Your task to perform on an android device: Go to Maps Image 0: 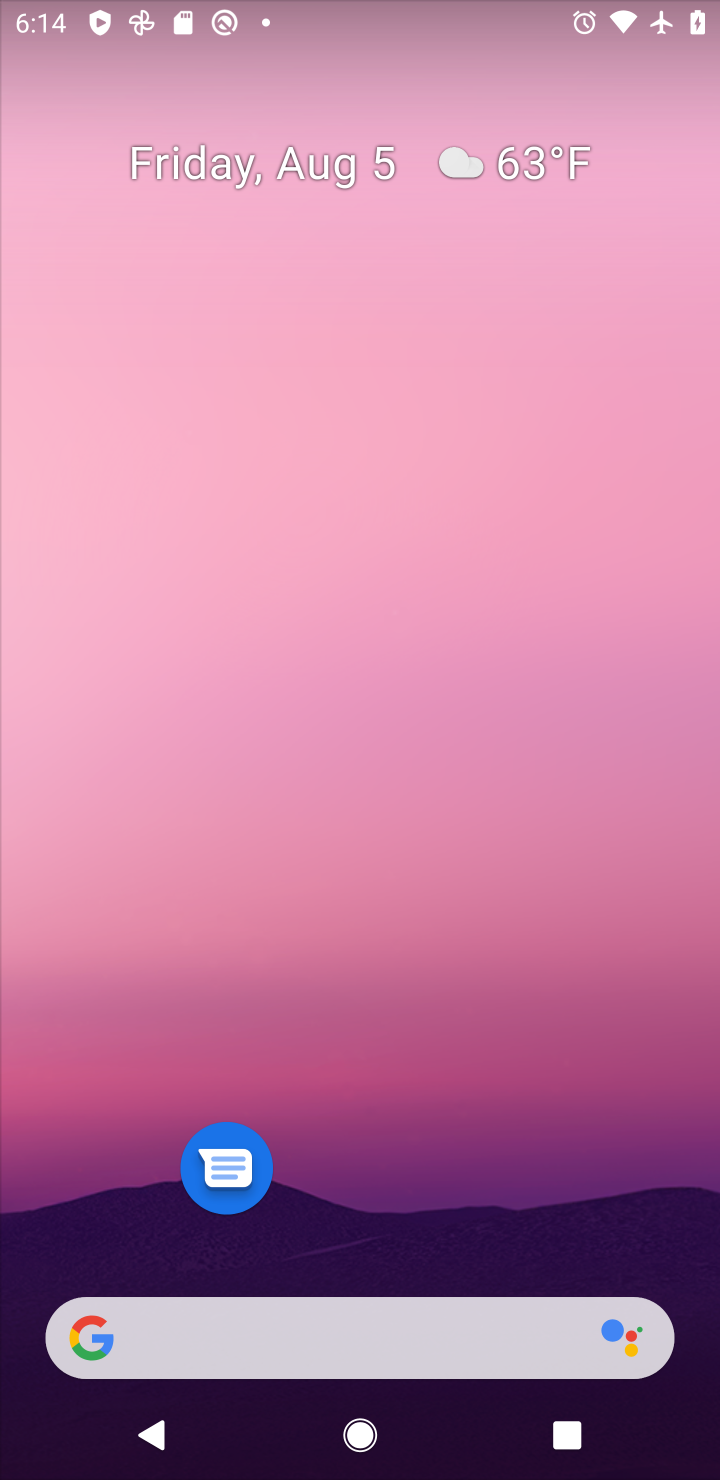
Step 0: drag from (411, 1275) to (471, 202)
Your task to perform on an android device: Go to Maps Image 1: 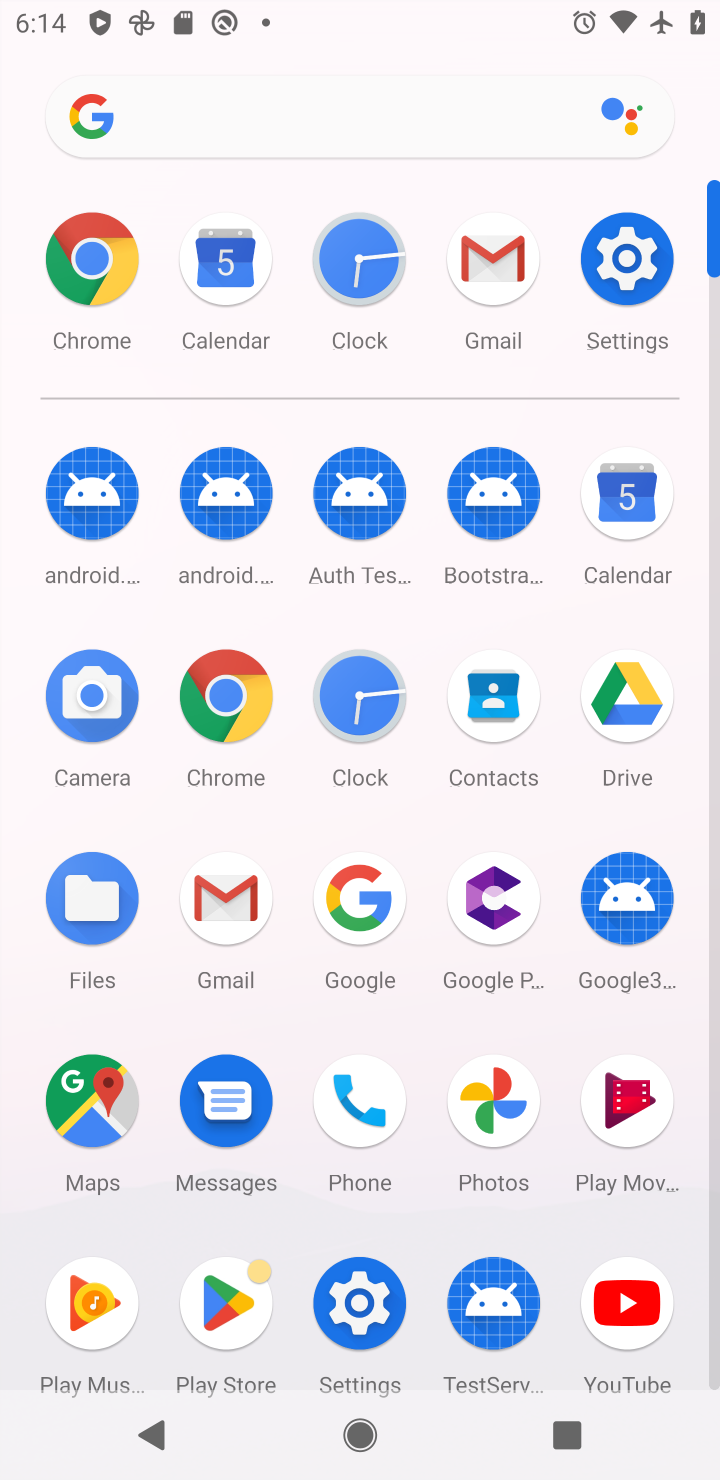
Step 1: click (89, 1109)
Your task to perform on an android device: Go to Maps Image 2: 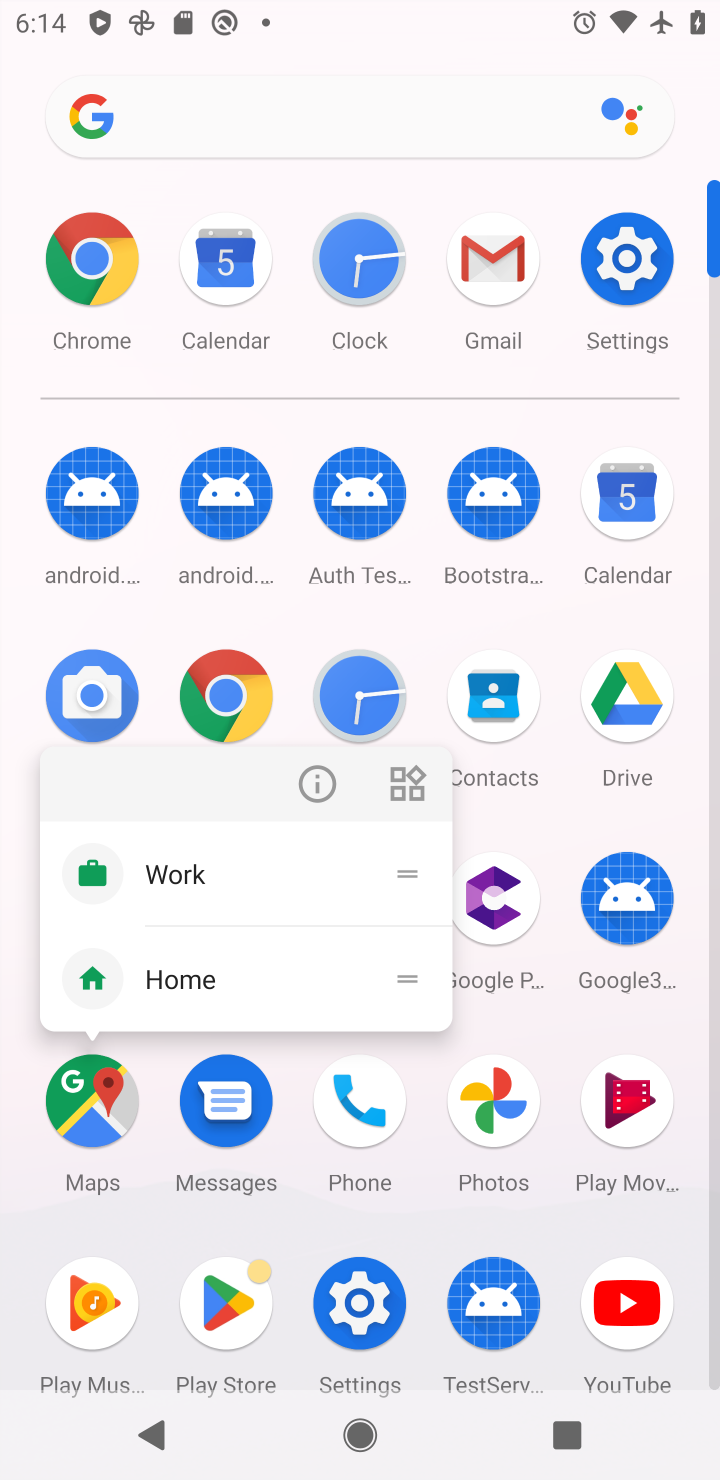
Step 2: click (89, 1109)
Your task to perform on an android device: Go to Maps Image 3: 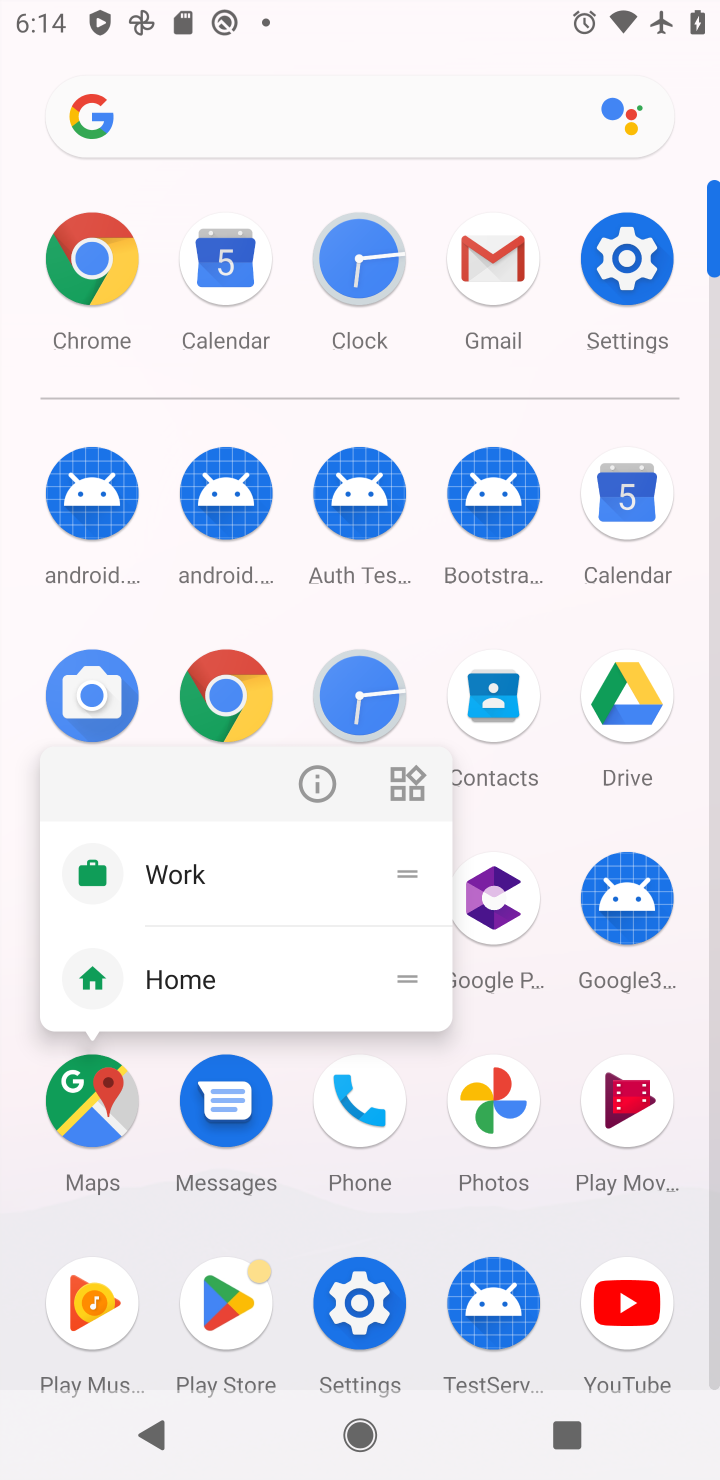
Step 3: click (89, 1109)
Your task to perform on an android device: Go to Maps Image 4: 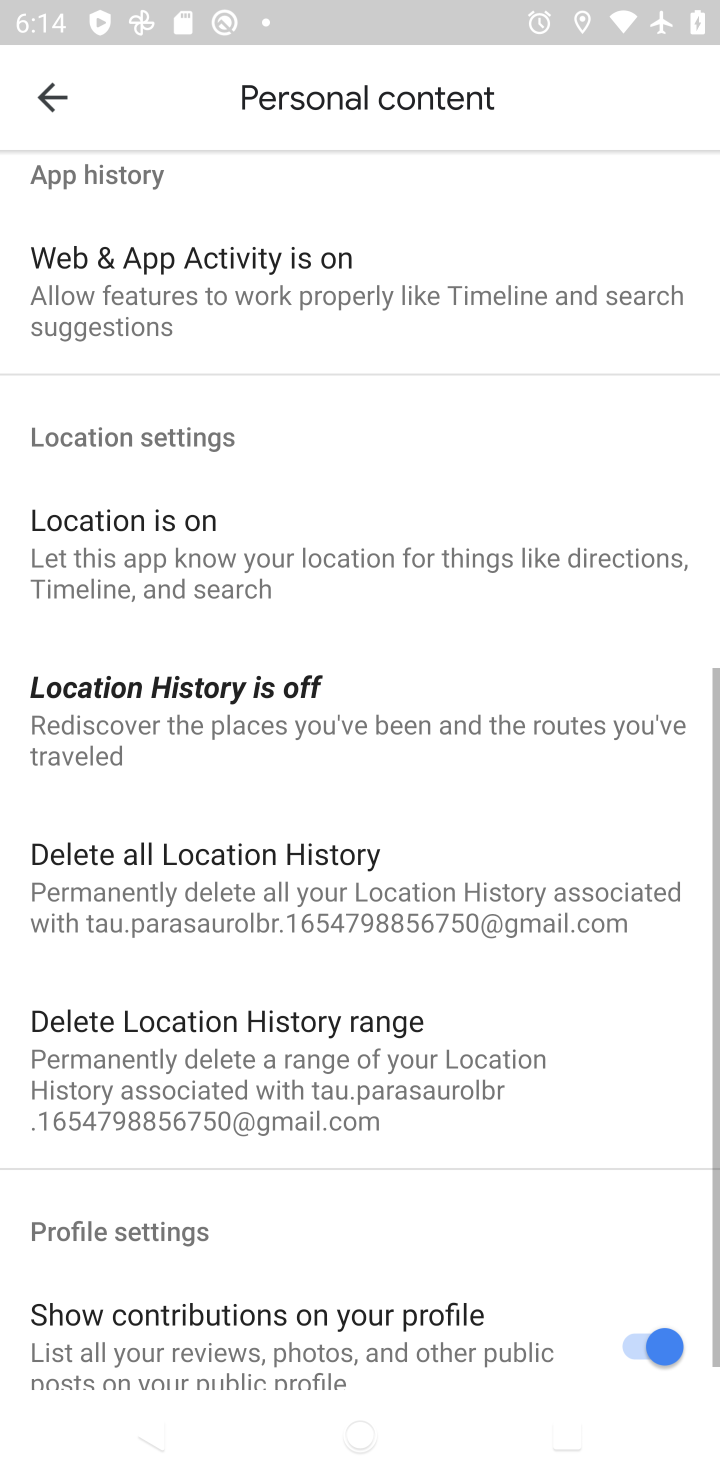
Step 4: click (64, 96)
Your task to perform on an android device: Go to Maps Image 5: 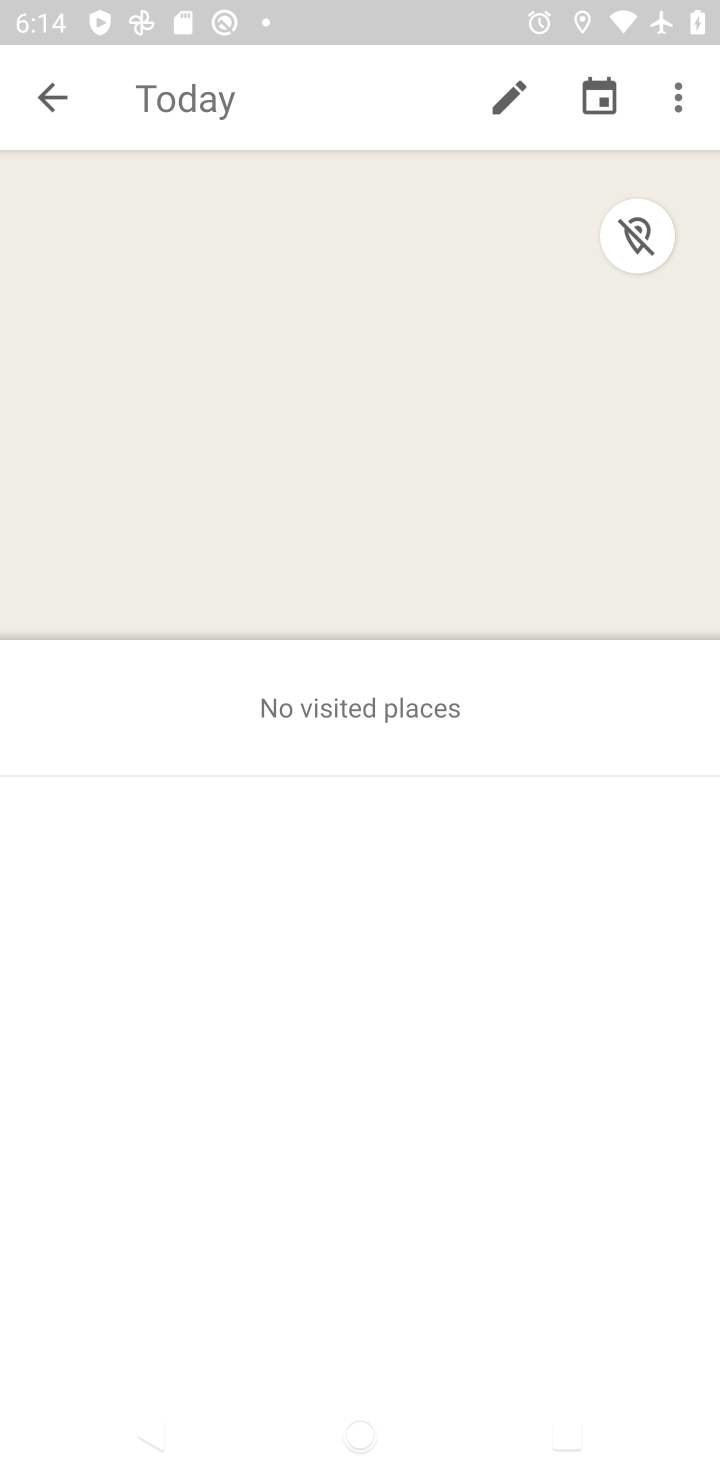
Step 5: click (61, 99)
Your task to perform on an android device: Go to Maps Image 6: 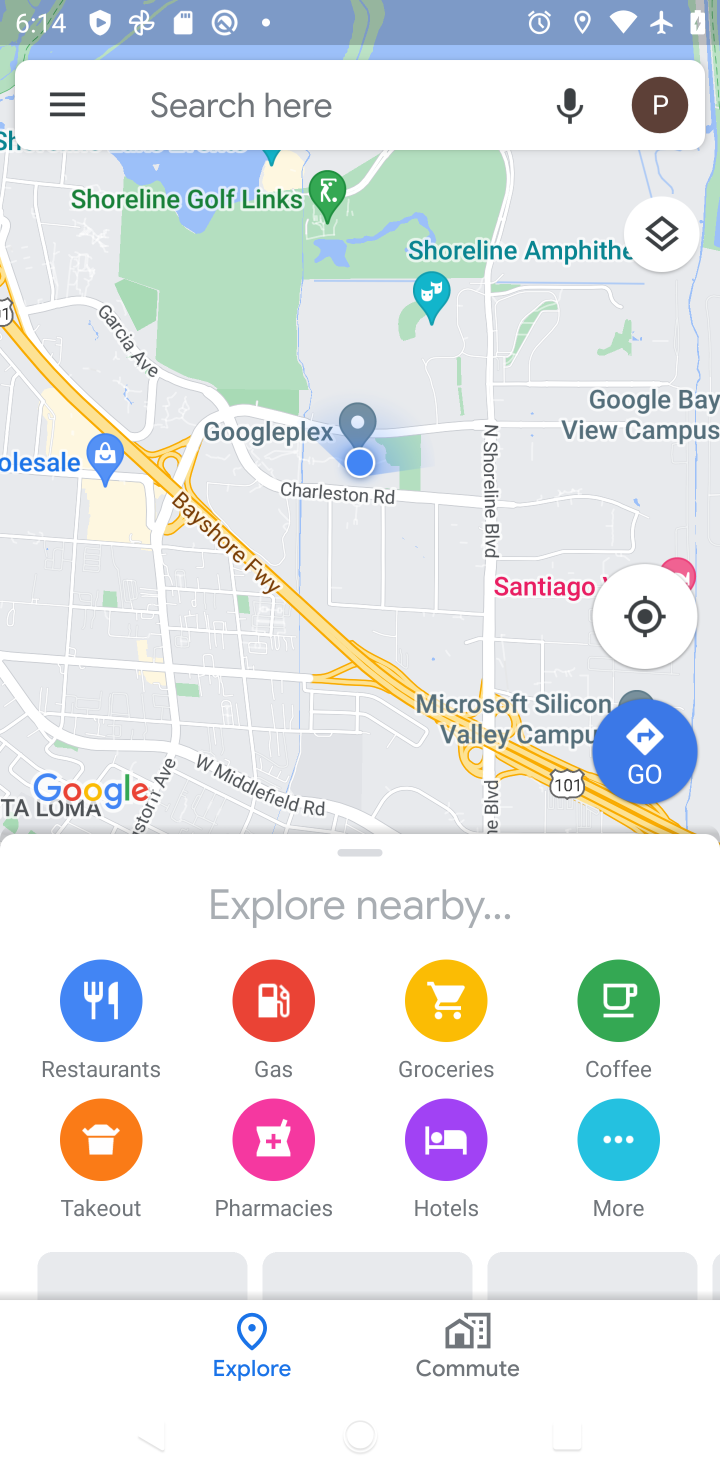
Step 6: task complete